Your task to perform on an android device: Open Chrome and go to settings Image 0: 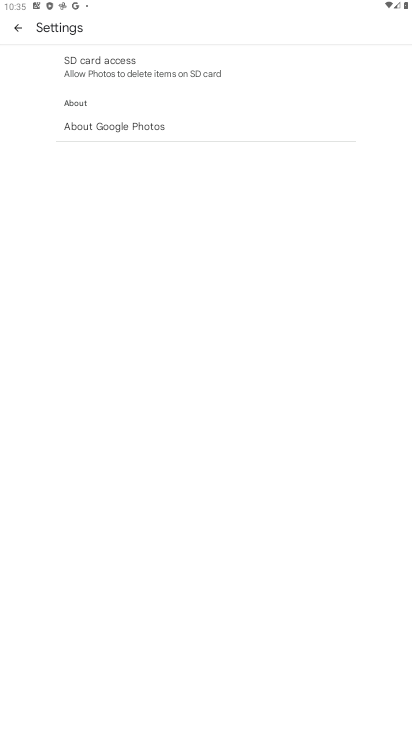
Step 0: press home button
Your task to perform on an android device: Open Chrome and go to settings Image 1: 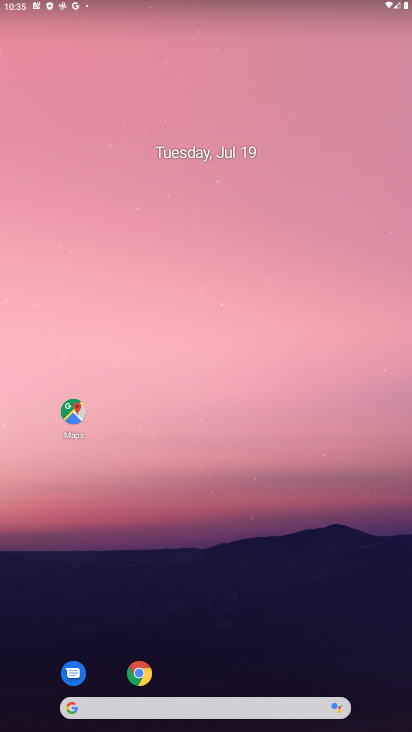
Step 1: click (151, 682)
Your task to perform on an android device: Open Chrome and go to settings Image 2: 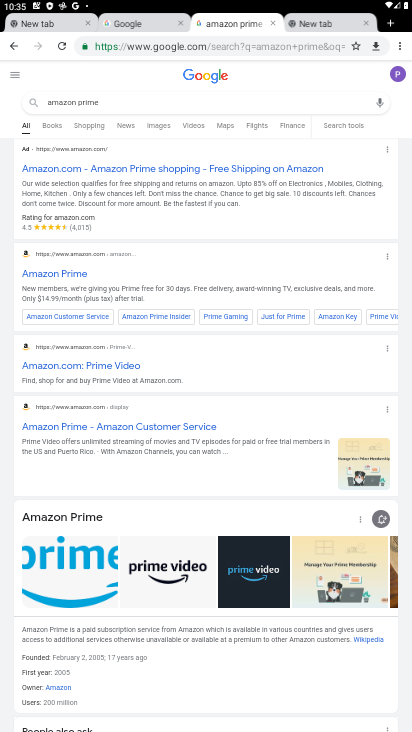
Step 2: click (392, 28)
Your task to perform on an android device: Open Chrome and go to settings Image 3: 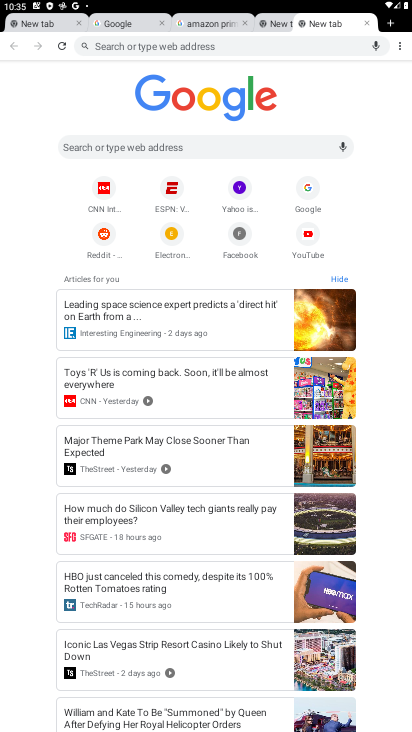
Step 3: click (404, 47)
Your task to perform on an android device: Open Chrome and go to settings Image 4: 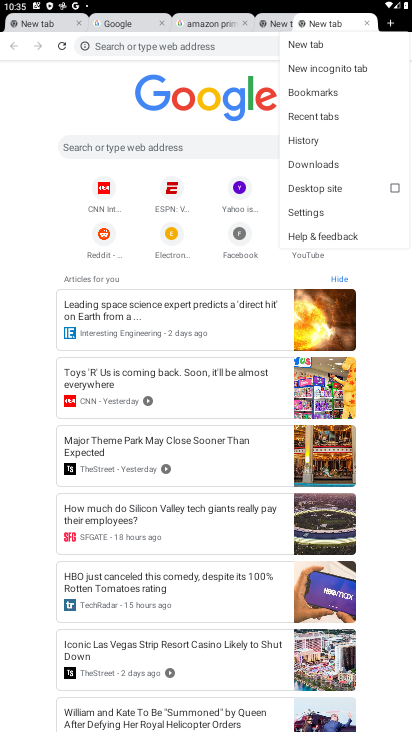
Step 4: click (316, 214)
Your task to perform on an android device: Open Chrome and go to settings Image 5: 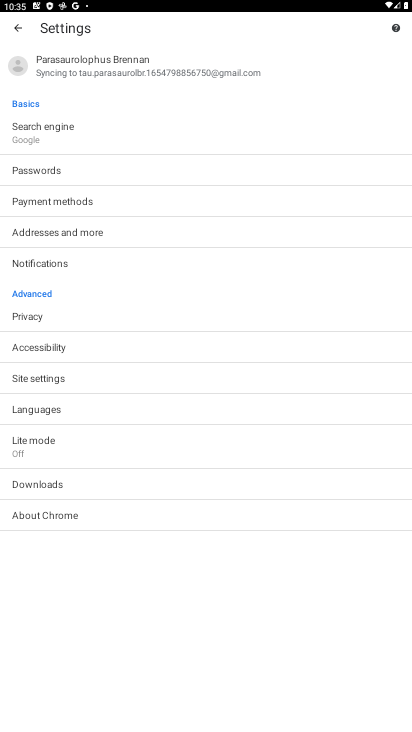
Step 5: task complete